Your task to perform on an android device: allow cookies in the chrome app Image 0: 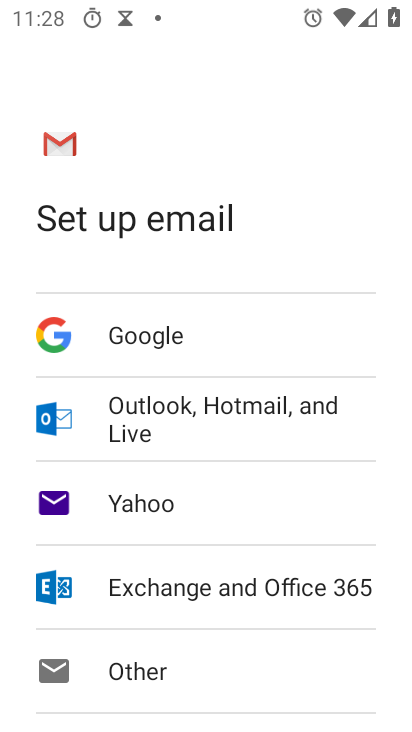
Step 0: press back button
Your task to perform on an android device: allow cookies in the chrome app Image 1: 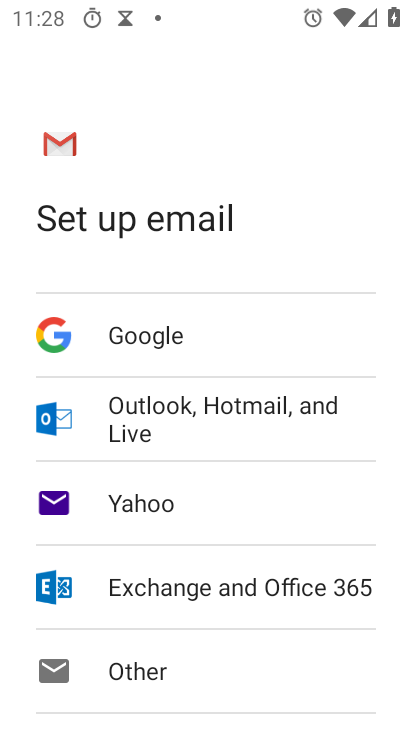
Step 1: press back button
Your task to perform on an android device: allow cookies in the chrome app Image 2: 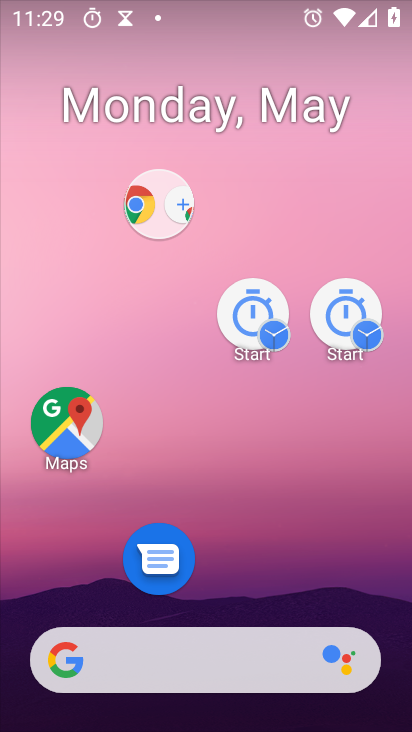
Step 2: press home button
Your task to perform on an android device: allow cookies in the chrome app Image 3: 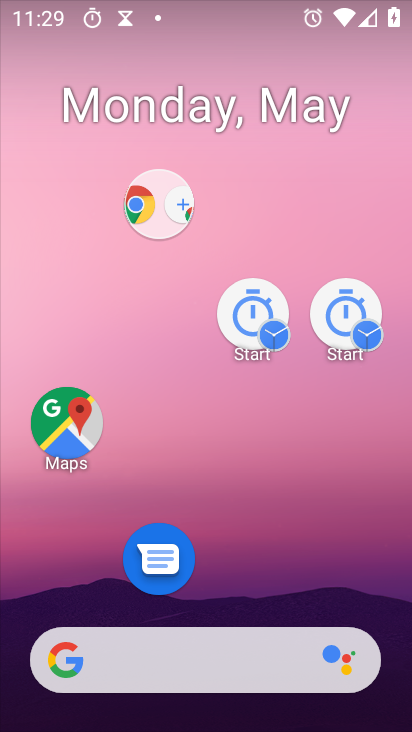
Step 3: drag from (254, 706) to (136, 95)
Your task to perform on an android device: allow cookies in the chrome app Image 4: 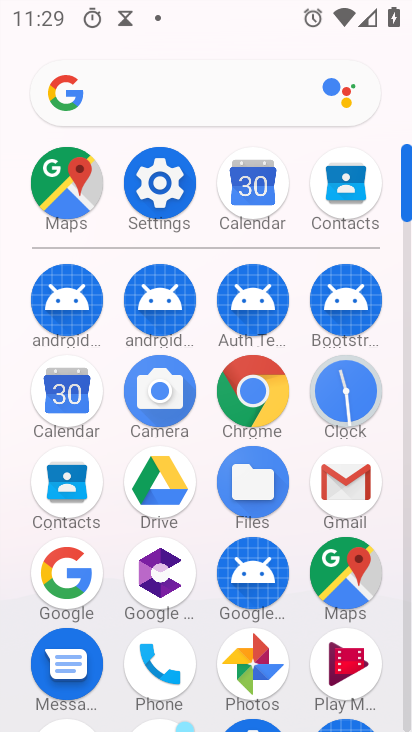
Step 4: click (254, 390)
Your task to perform on an android device: allow cookies in the chrome app Image 5: 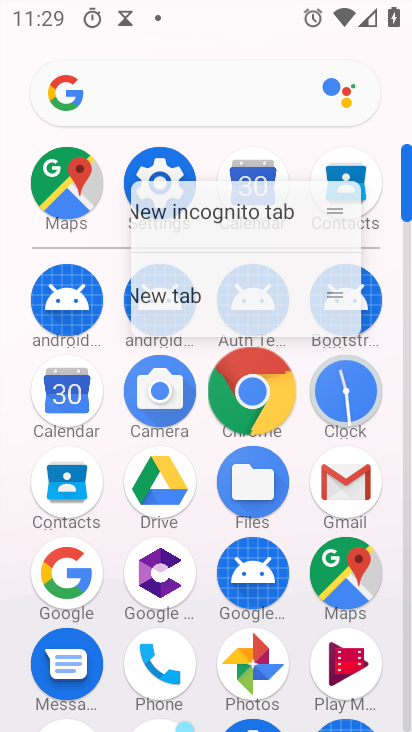
Step 5: click (255, 387)
Your task to perform on an android device: allow cookies in the chrome app Image 6: 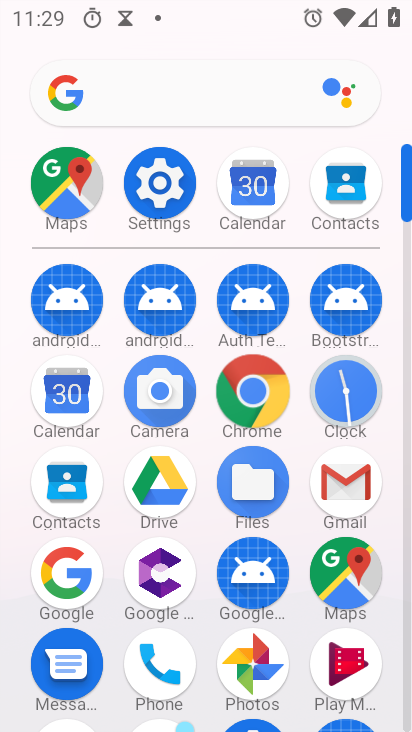
Step 6: click (255, 387)
Your task to perform on an android device: allow cookies in the chrome app Image 7: 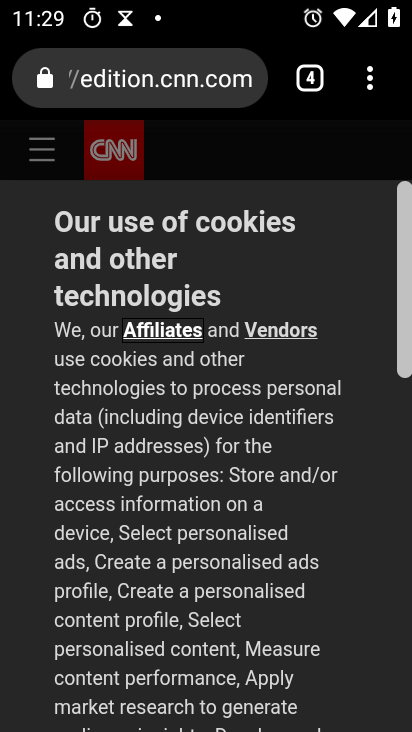
Step 7: click (368, 83)
Your task to perform on an android device: allow cookies in the chrome app Image 8: 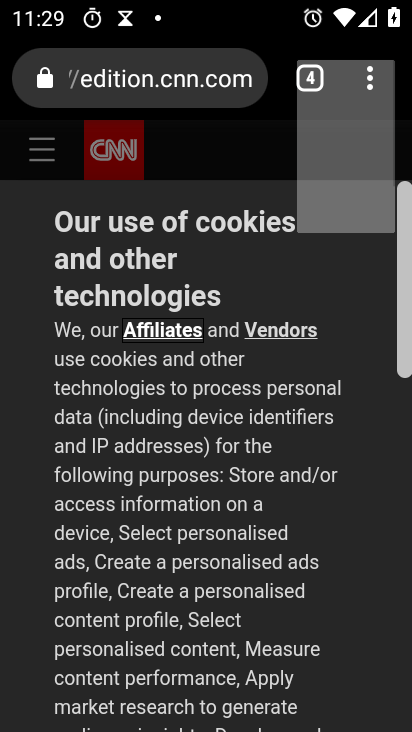
Step 8: click (368, 83)
Your task to perform on an android device: allow cookies in the chrome app Image 9: 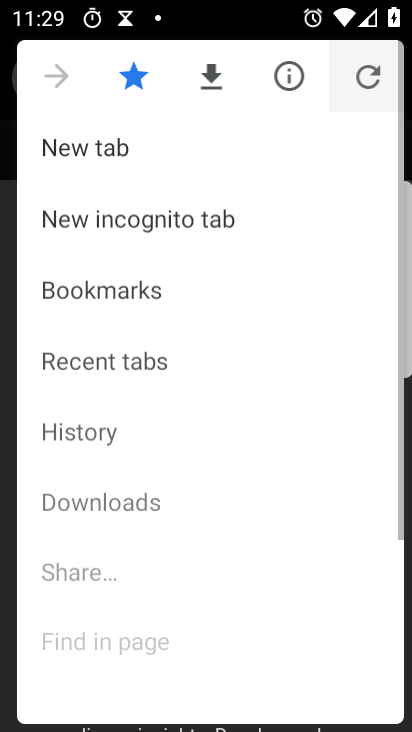
Step 9: click (363, 94)
Your task to perform on an android device: allow cookies in the chrome app Image 10: 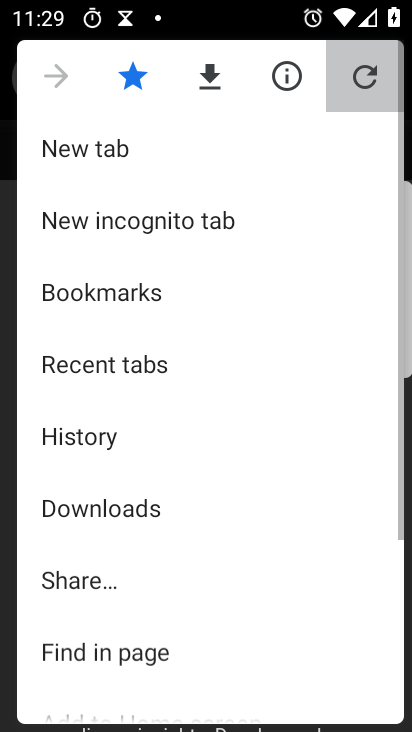
Step 10: click (363, 94)
Your task to perform on an android device: allow cookies in the chrome app Image 11: 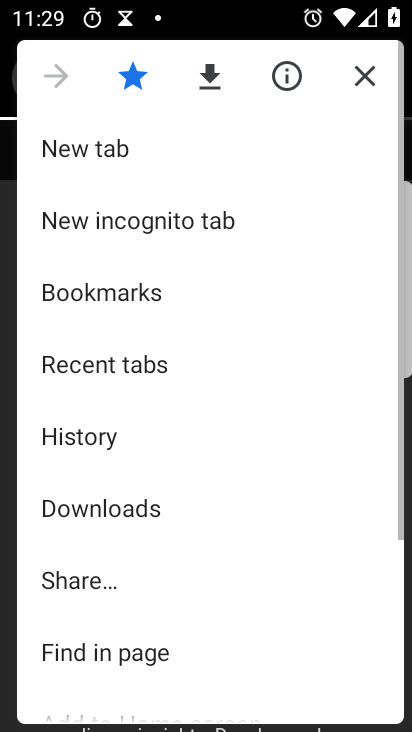
Step 11: click (363, 94)
Your task to perform on an android device: allow cookies in the chrome app Image 12: 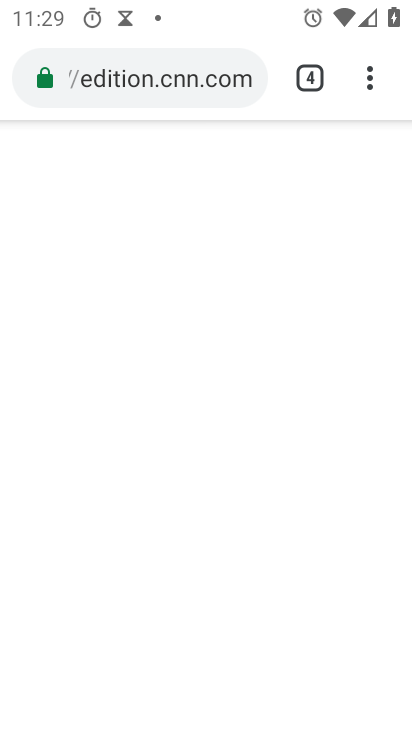
Step 12: drag from (366, 81) to (82, 616)
Your task to perform on an android device: allow cookies in the chrome app Image 13: 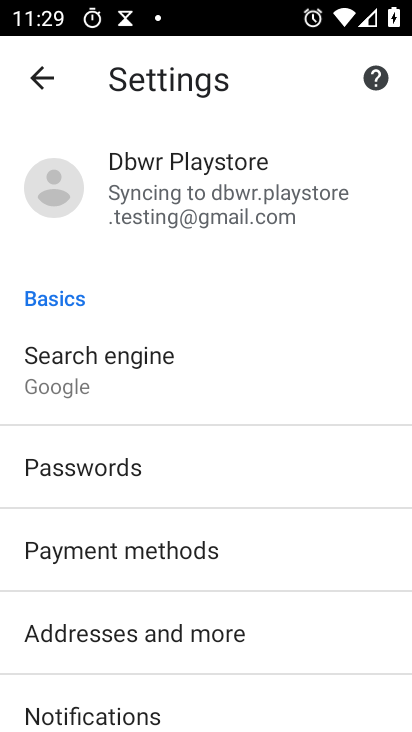
Step 13: drag from (113, 558) to (77, 185)
Your task to perform on an android device: allow cookies in the chrome app Image 14: 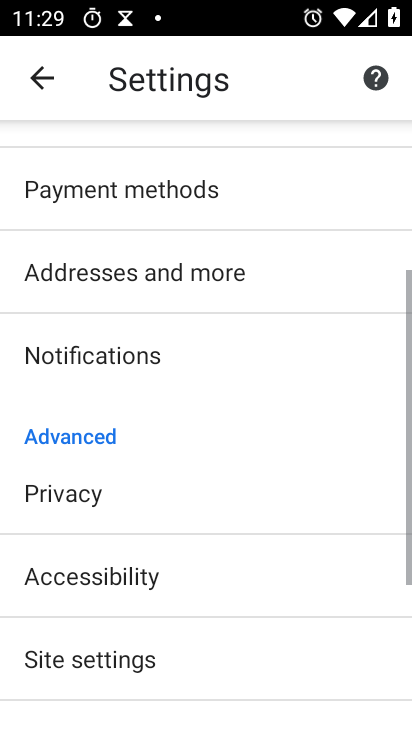
Step 14: drag from (113, 390) to (113, 153)
Your task to perform on an android device: allow cookies in the chrome app Image 15: 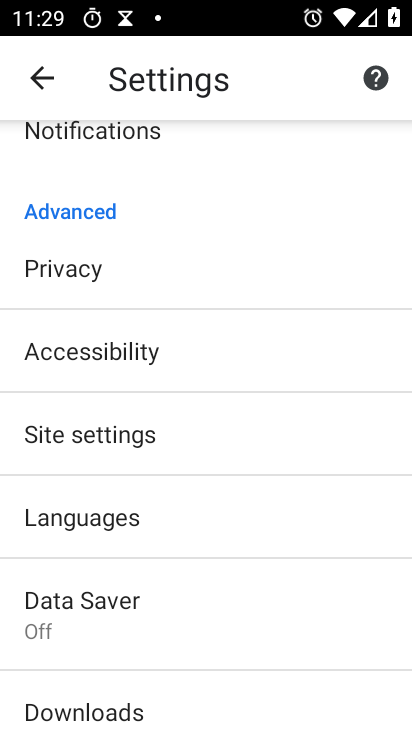
Step 15: click (61, 435)
Your task to perform on an android device: allow cookies in the chrome app Image 16: 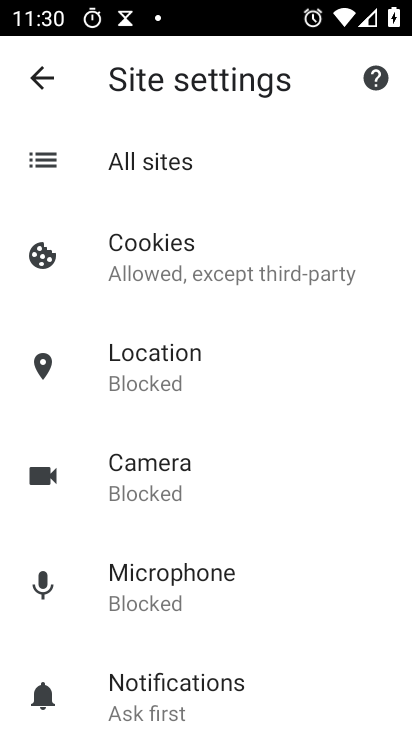
Step 16: drag from (149, 292) to (147, 258)
Your task to perform on an android device: allow cookies in the chrome app Image 17: 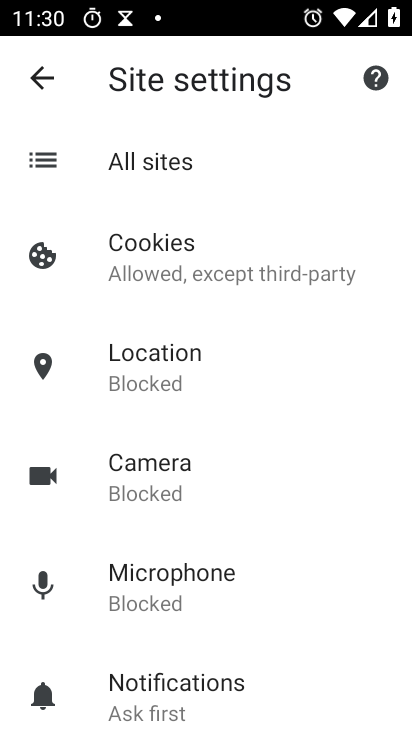
Step 17: click (147, 258)
Your task to perform on an android device: allow cookies in the chrome app Image 18: 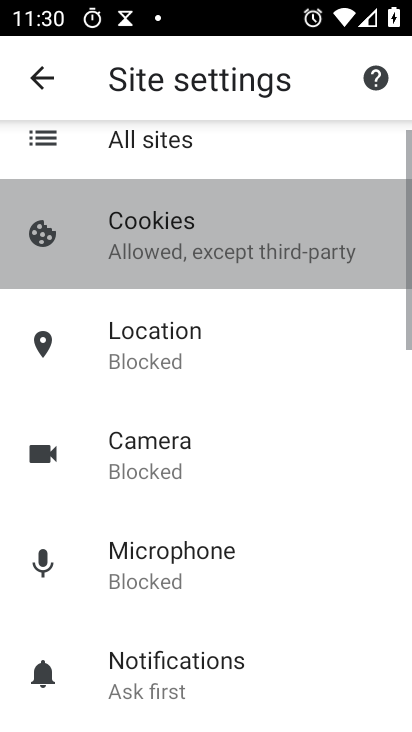
Step 18: click (145, 259)
Your task to perform on an android device: allow cookies in the chrome app Image 19: 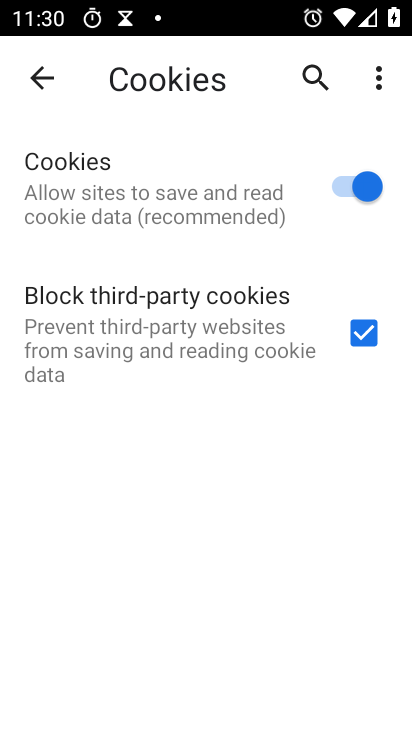
Step 19: task complete